Your task to perform on an android device: open app "Facebook Messenger" (install if not already installed) and go to login screen Image 0: 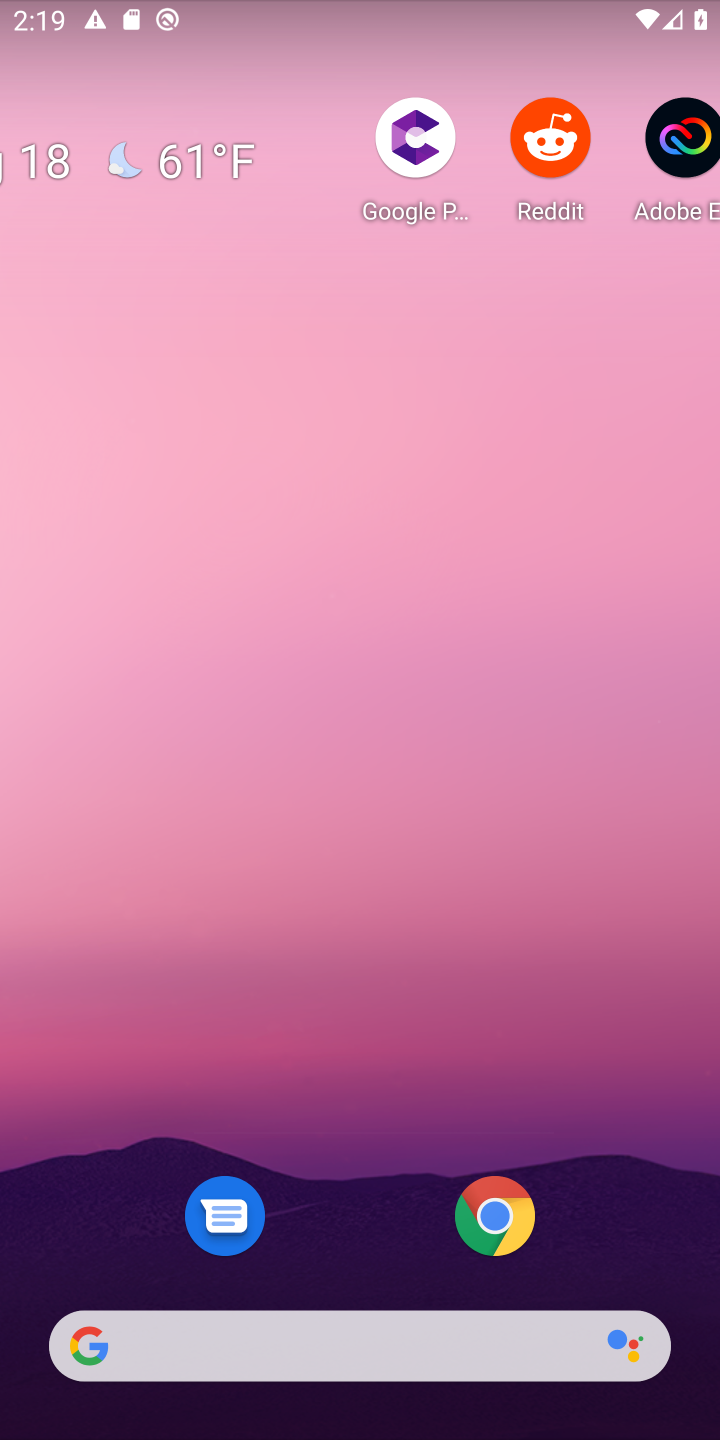
Step 0: press home button
Your task to perform on an android device: open app "Facebook Messenger" (install if not already installed) and go to login screen Image 1: 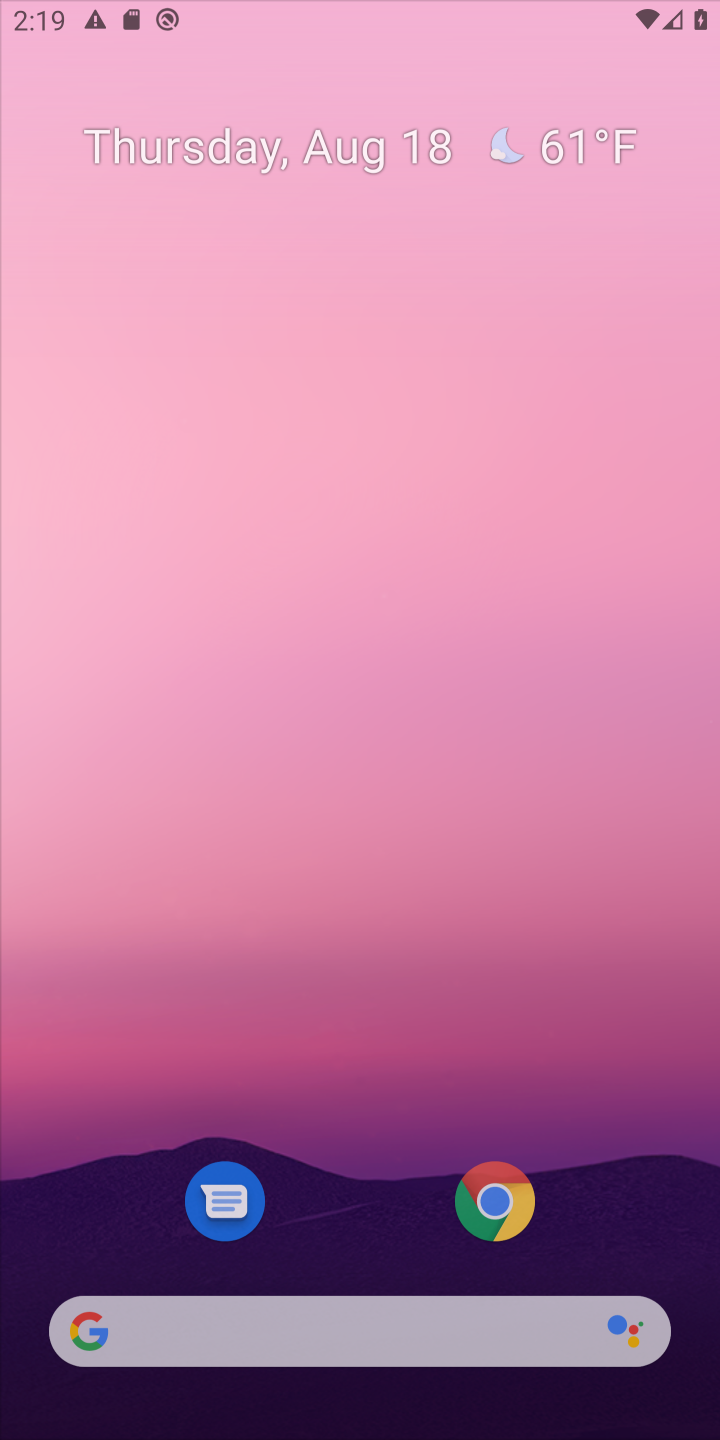
Step 1: click (570, 224)
Your task to perform on an android device: open app "Facebook Messenger" (install if not already installed) and go to login screen Image 2: 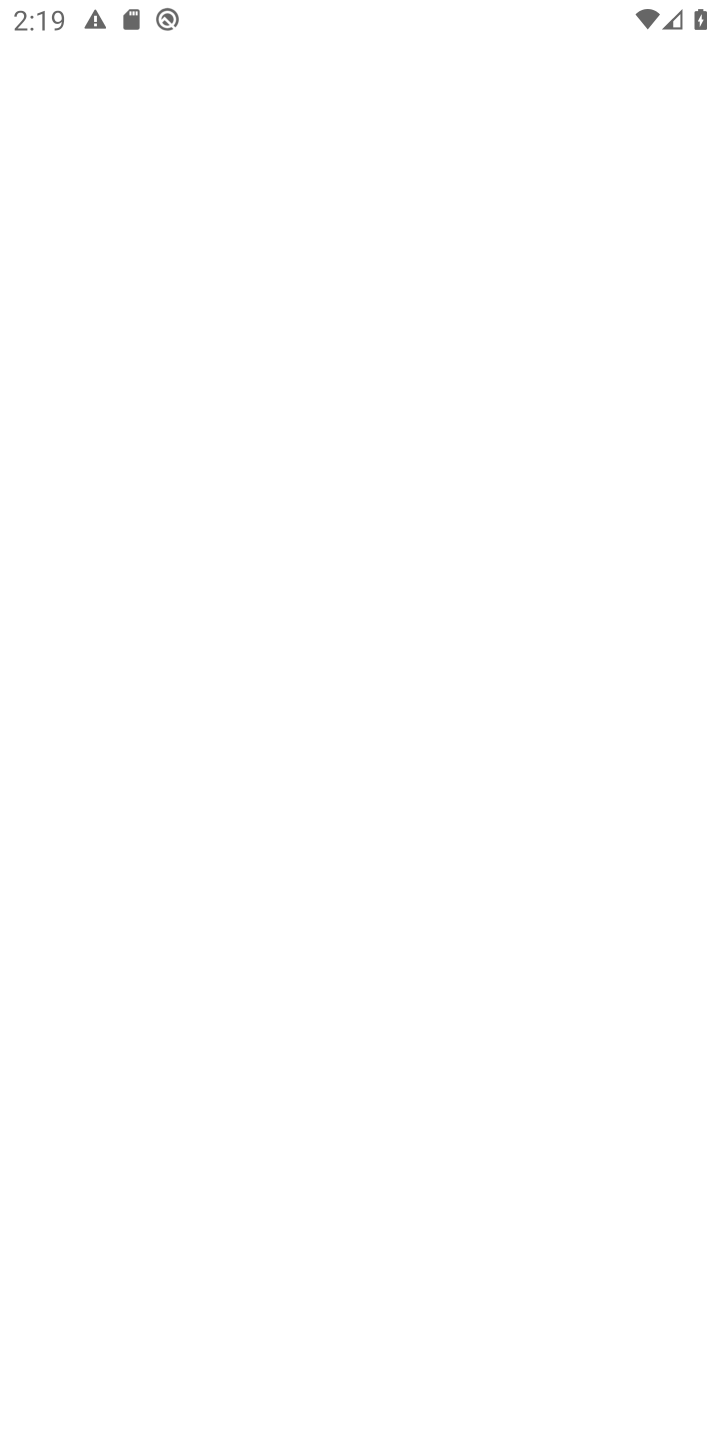
Step 2: drag from (657, 1220) to (662, 1121)
Your task to perform on an android device: open app "Facebook Messenger" (install if not already installed) and go to login screen Image 3: 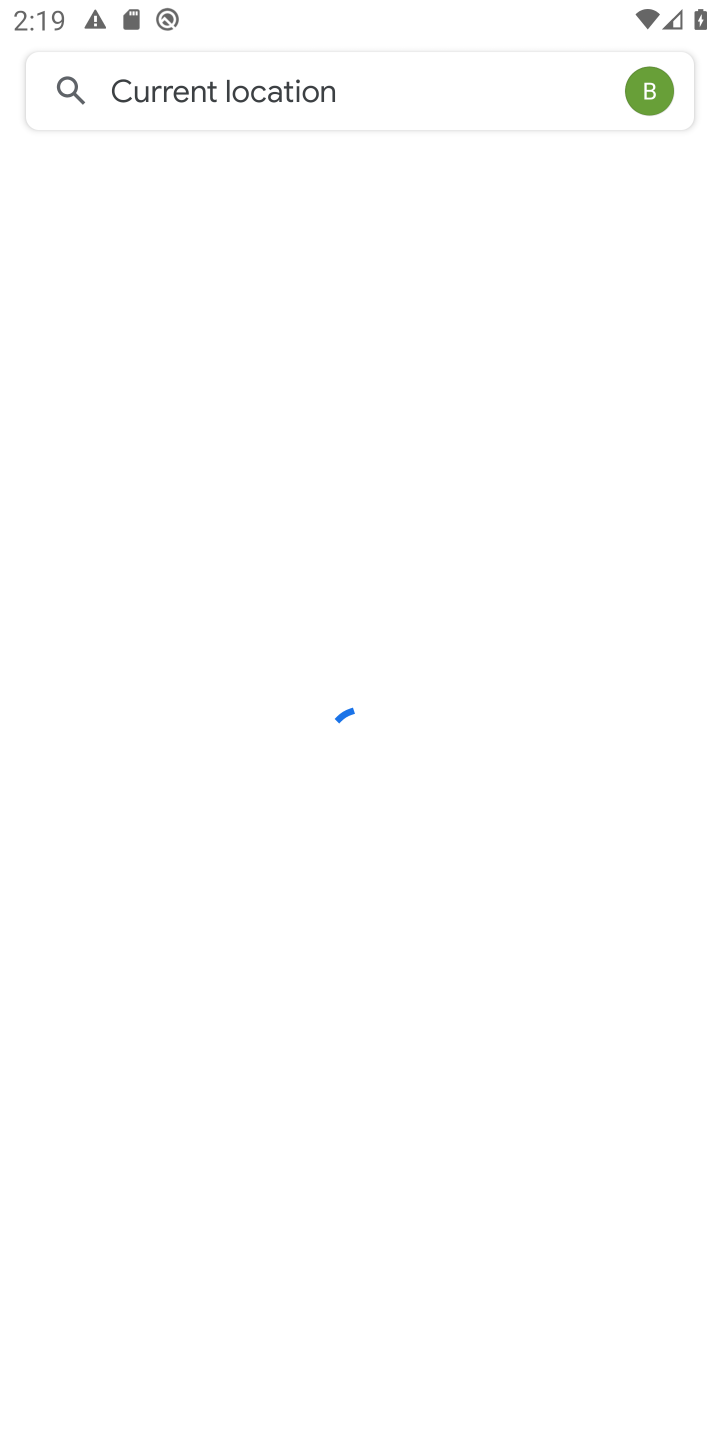
Step 3: press home button
Your task to perform on an android device: open app "Facebook Messenger" (install if not already installed) and go to login screen Image 4: 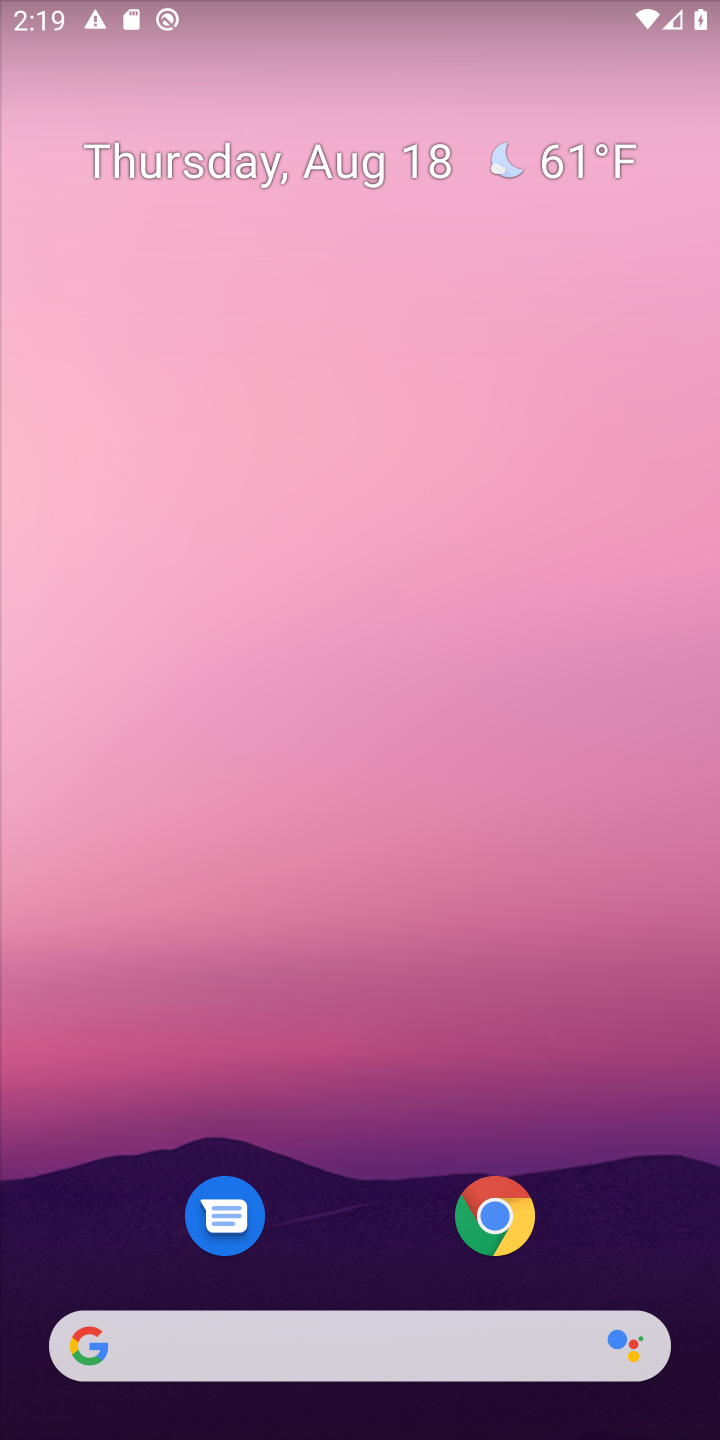
Step 4: drag from (666, 1189) to (658, 190)
Your task to perform on an android device: open app "Facebook Messenger" (install if not already installed) and go to login screen Image 5: 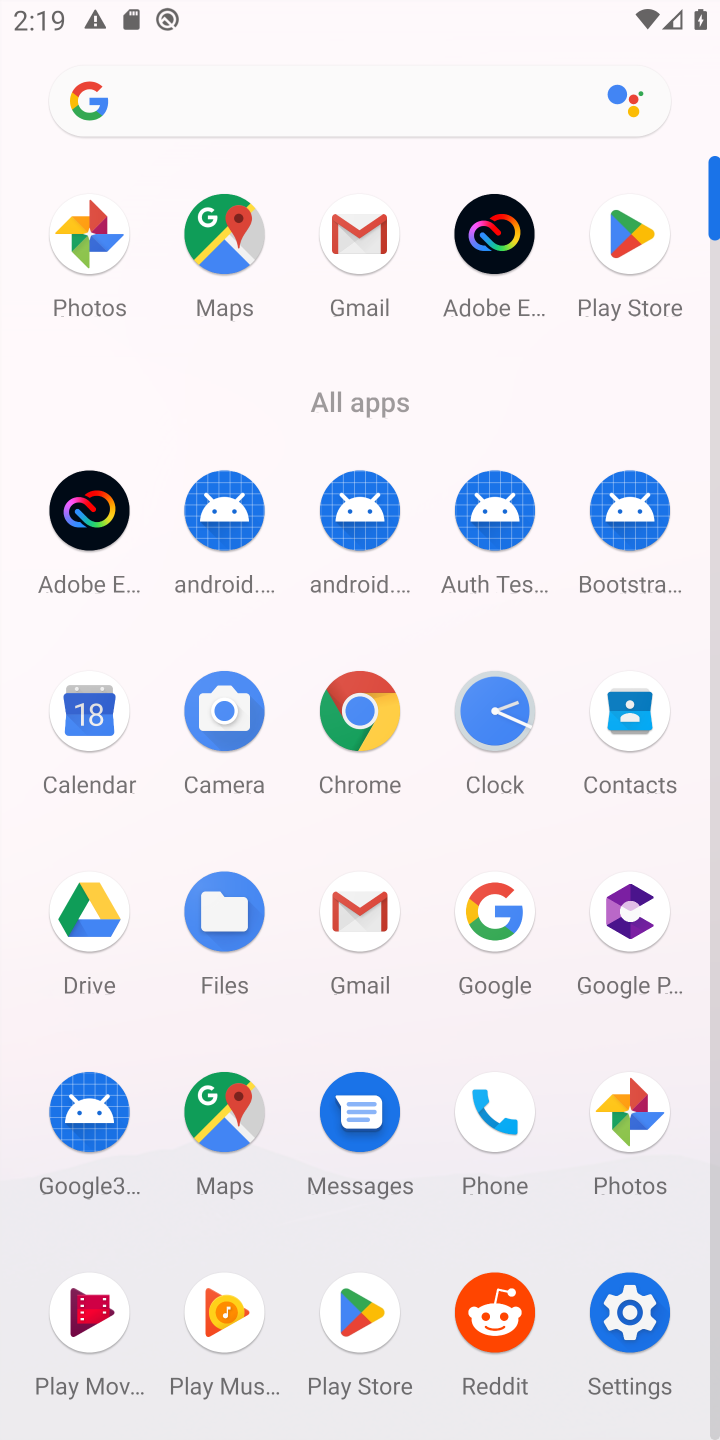
Step 5: click (363, 1307)
Your task to perform on an android device: open app "Facebook Messenger" (install if not already installed) and go to login screen Image 6: 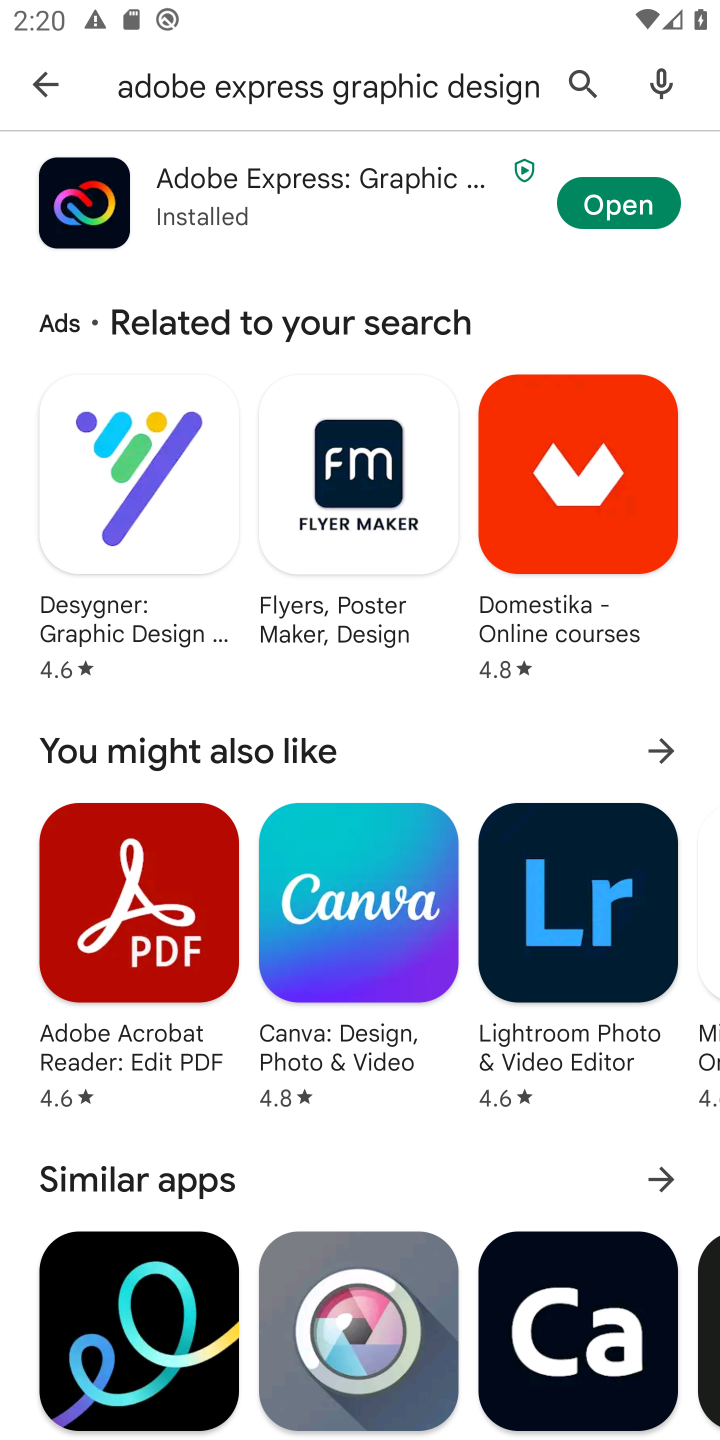
Step 6: click (583, 79)
Your task to perform on an android device: open app "Facebook Messenger" (install if not already installed) and go to login screen Image 7: 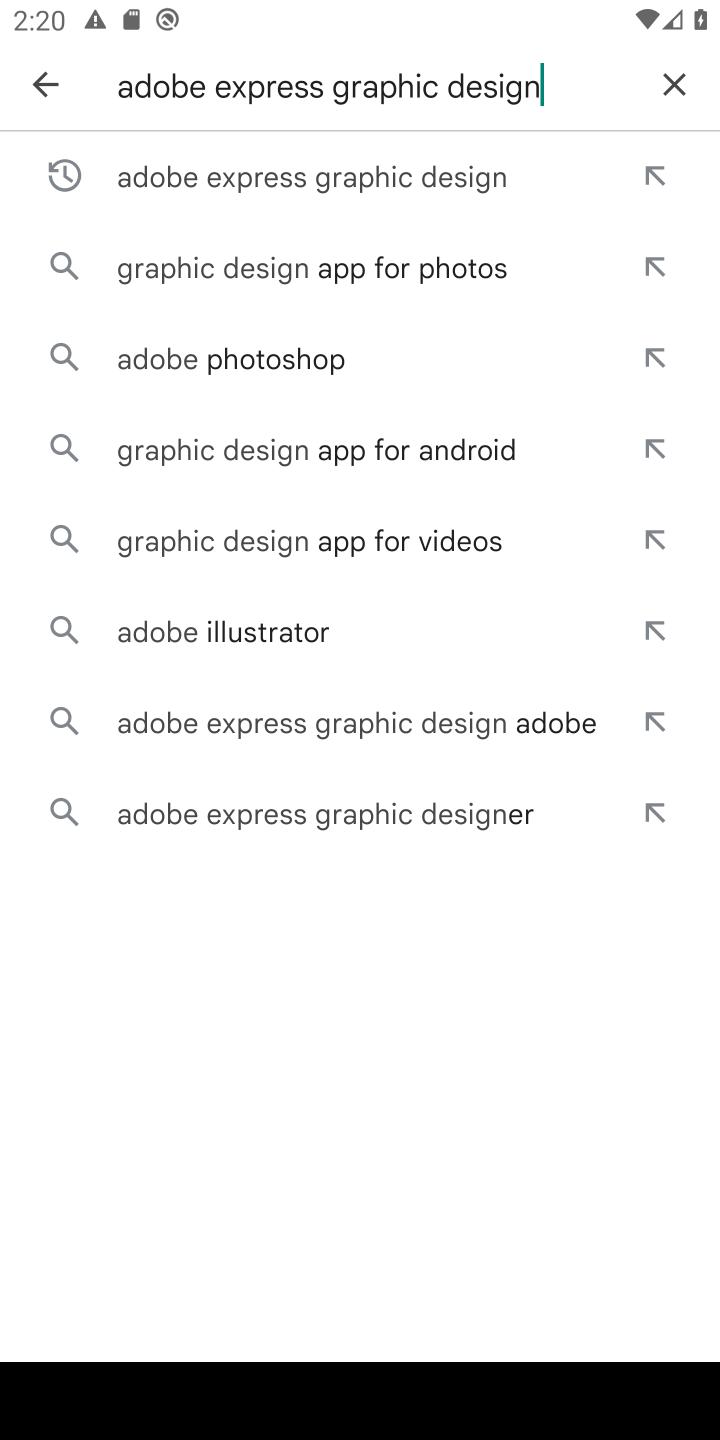
Step 7: click (670, 84)
Your task to perform on an android device: open app "Facebook Messenger" (install if not already installed) and go to login screen Image 8: 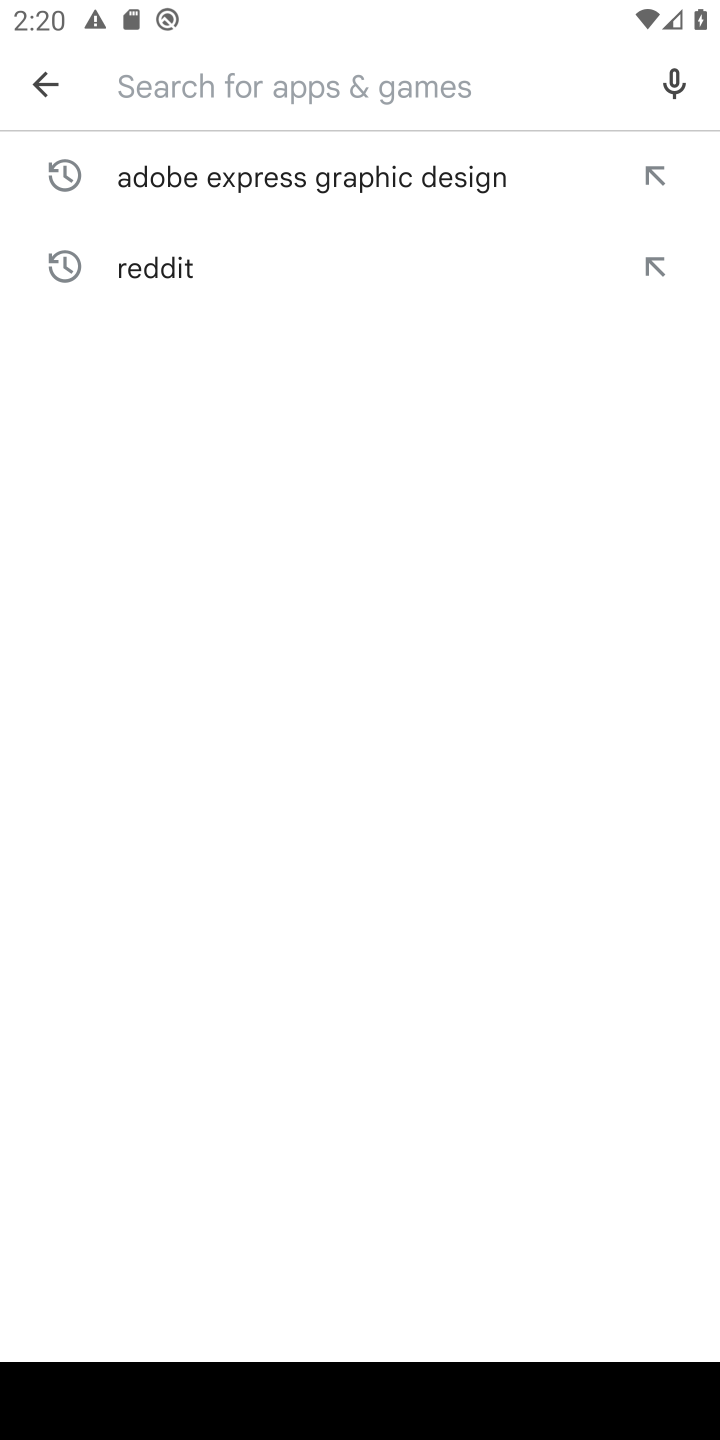
Step 8: type "Facebook Messenger"
Your task to perform on an android device: open app "Facebook Messenger" (install if not already installed) and go to login screen Image 9: 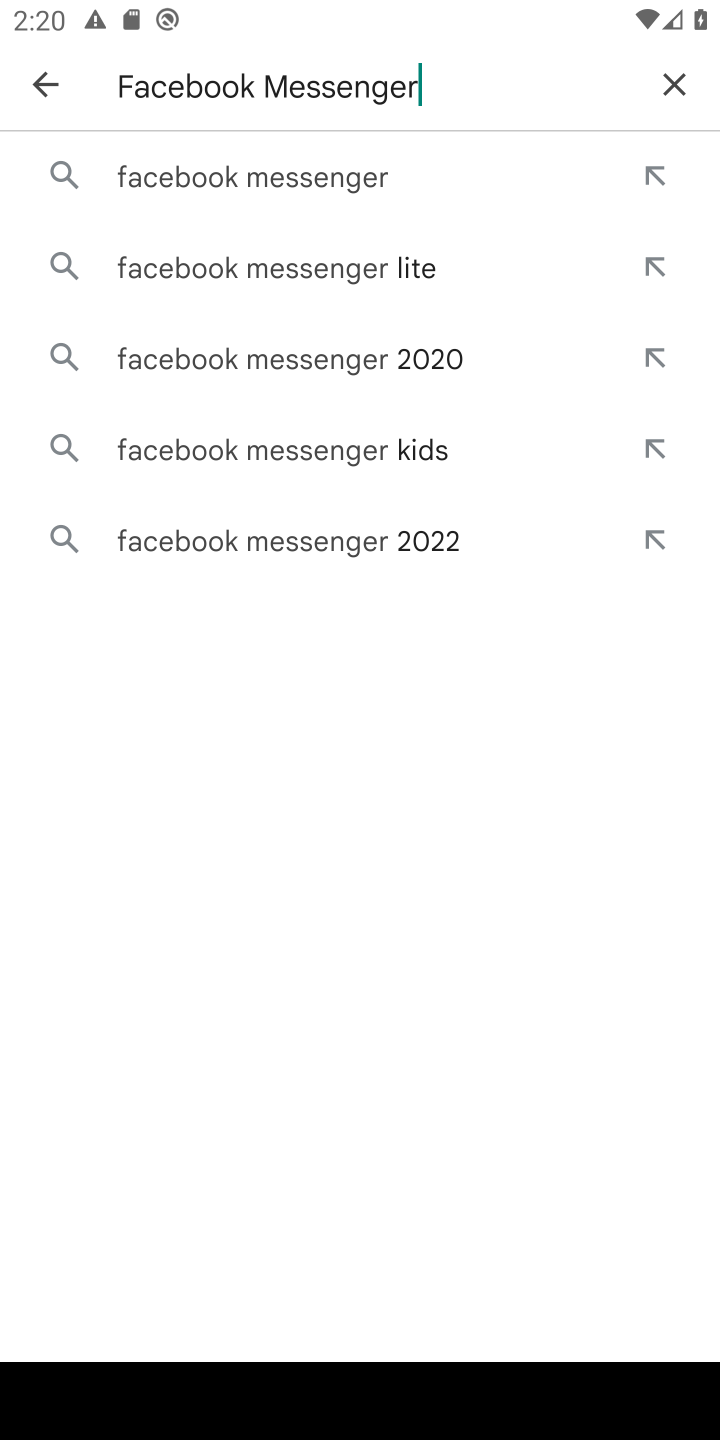
Step 9: click (239, 171)
Your task to perform on an android device: open app "Facebook Messenger" (install if not already installed) and go to login screen Image 10: 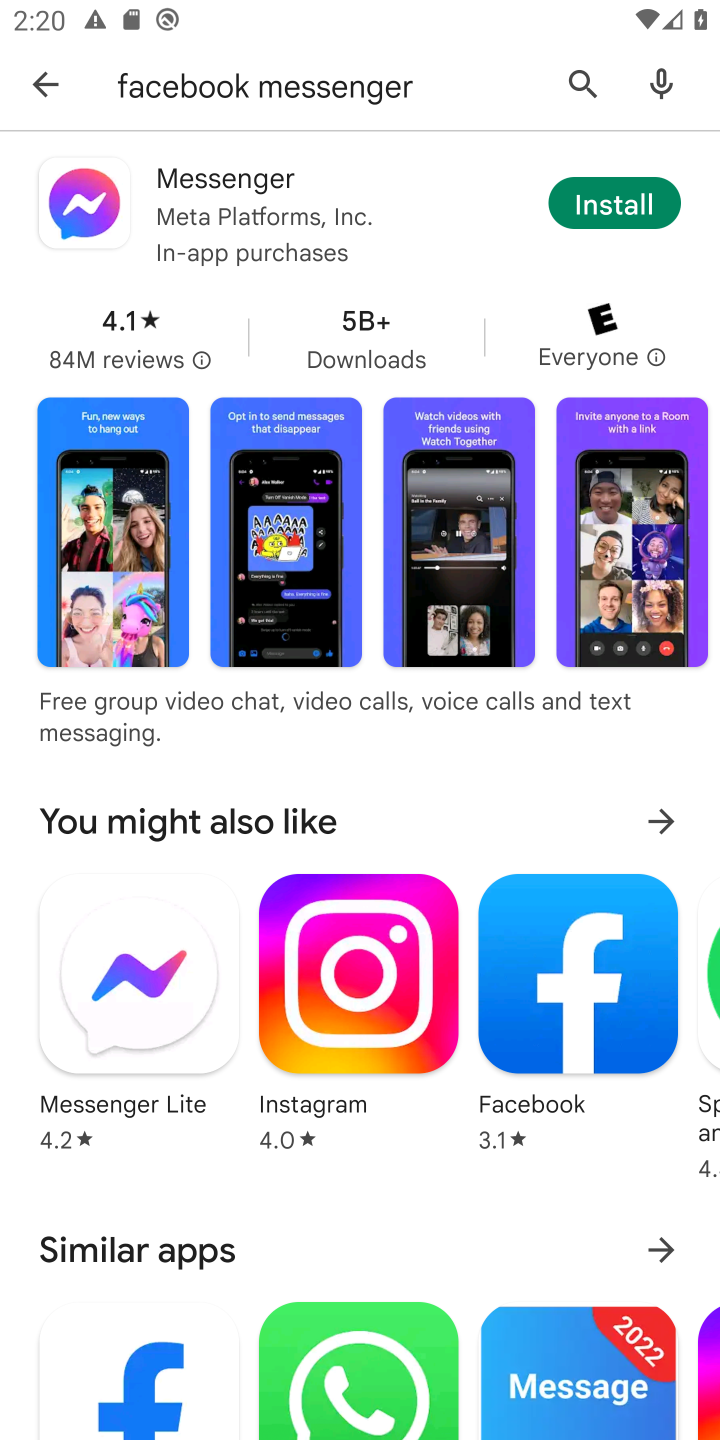
Step 10: click (606, 199)
Your task to perform on an android device: open app "Facebook Messenger" (install if not already installed) and go to login screen Image 11: 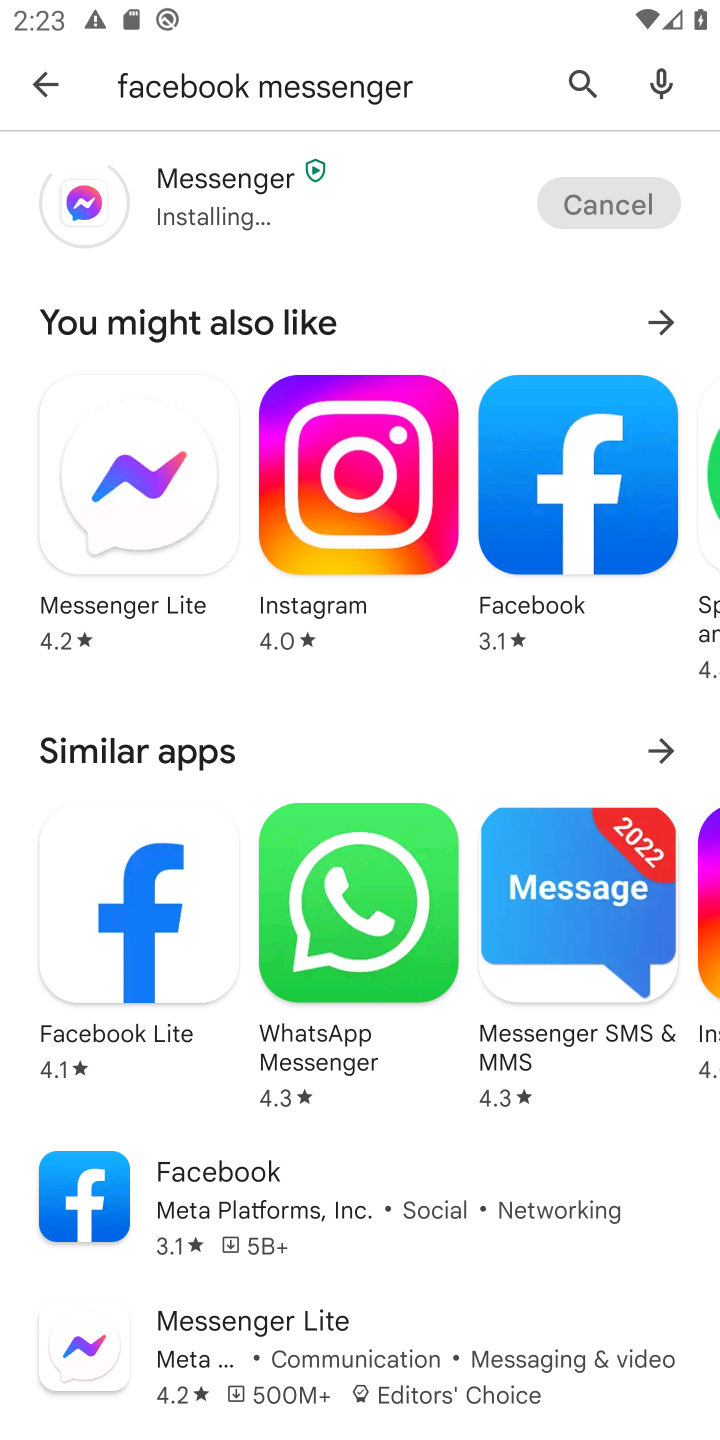
Step 11: click (197, 193)
Your task to perform on an android device: open app "Facebook Messenger" (install if not already installed) and go to login screen Image 12: 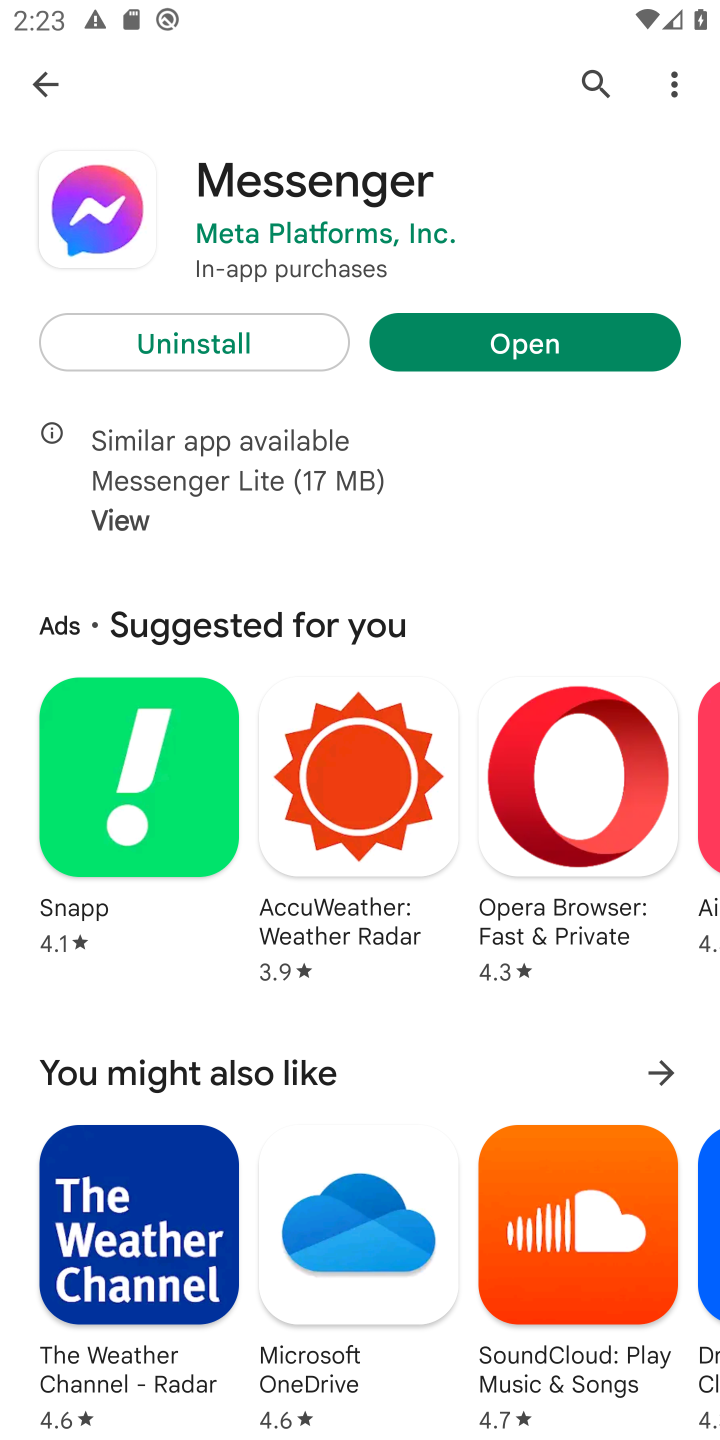
Step 12: click (507, 345)
Your task to perform on an android device: open app "Facebook Messenger" (install if not already installed) and go to login screen Image 13: 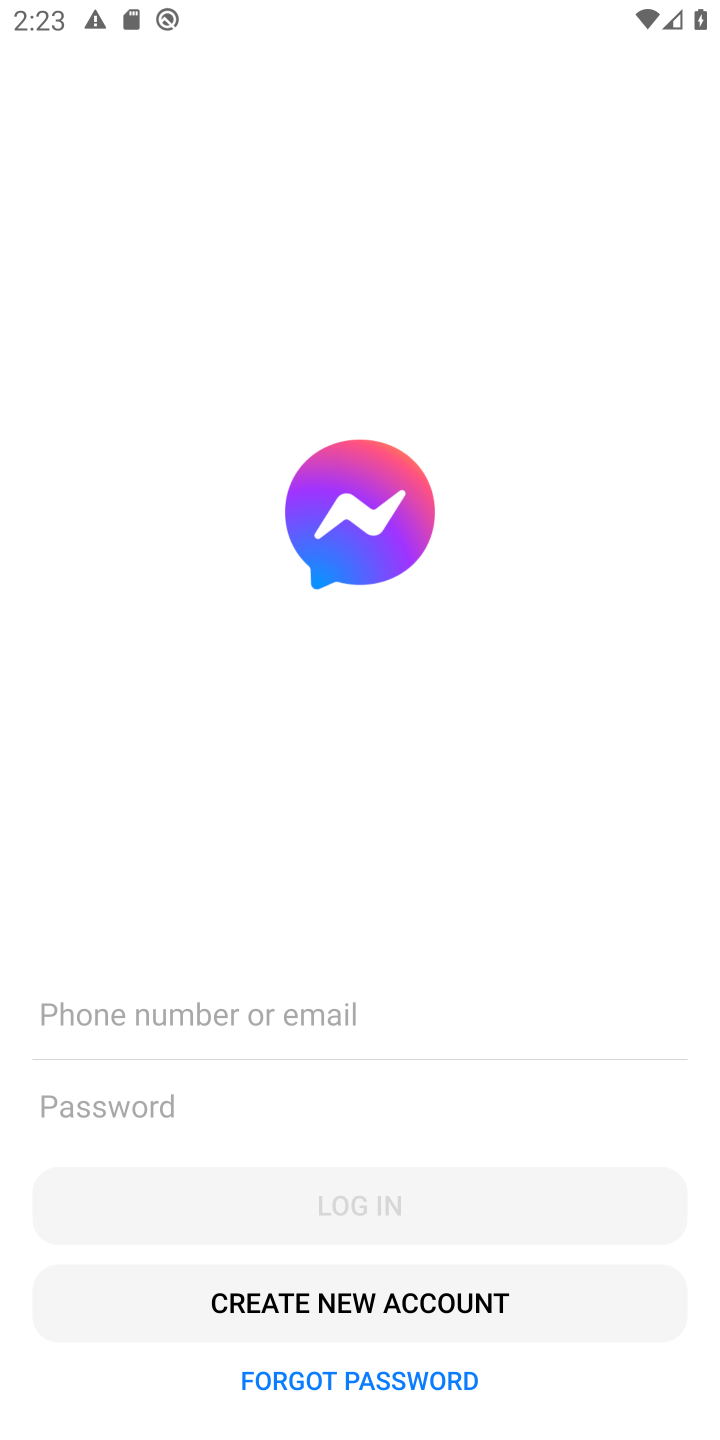
Step 13: task complete